Your task to perform on an android device: Turn off the flashlight Image 0: 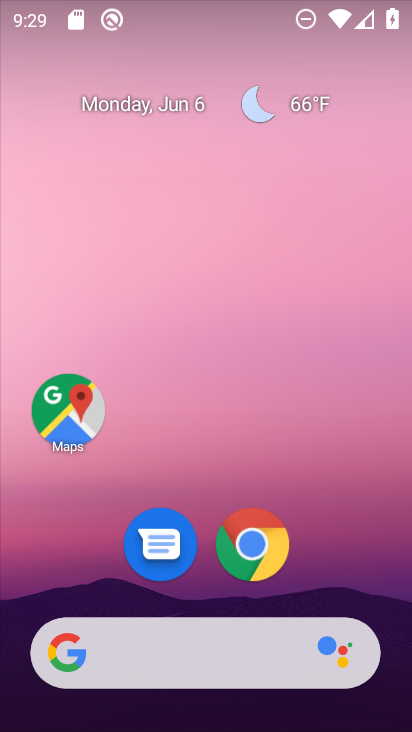
Step 0: drag from (204, 591) to (201, 162)
Your task to perform on an android device: Turn off the flashlight Image 1: 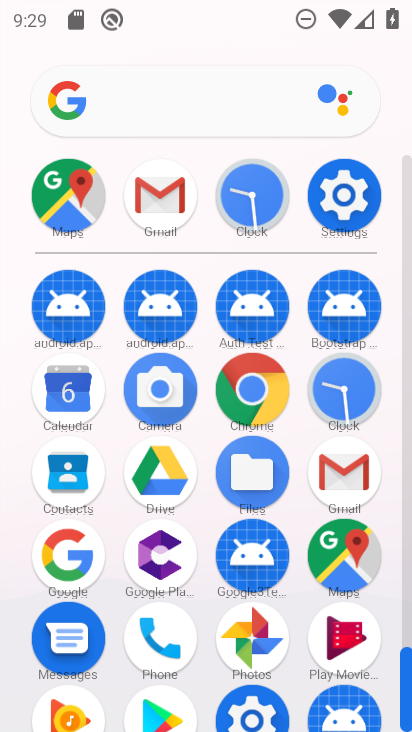
Step 1: click (352, 201)
Your task to perform on an android device: Turn off the flashlight Image 2: 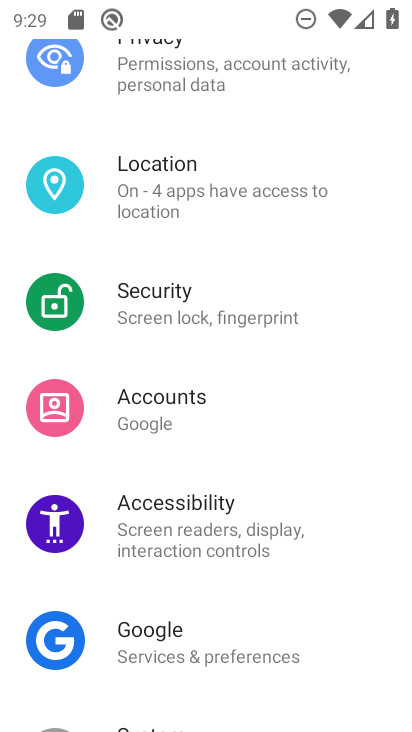
Step 2: drag from (220, 221) to (224, 586)
Your task to perform on an android device: Turn off the flashlight Image 3: 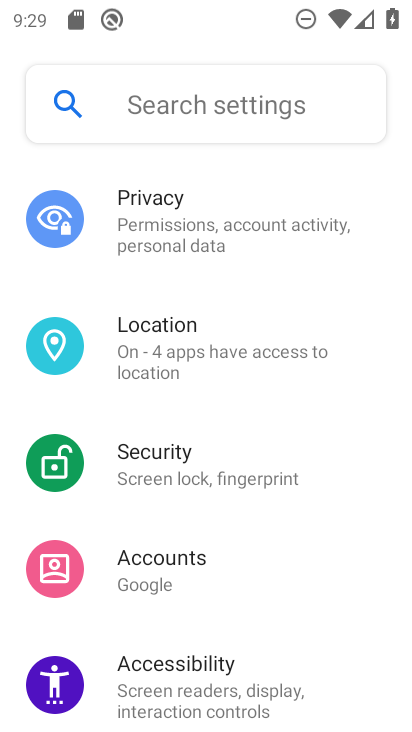
Step 3: drag from (220, 257) to (220, 706)
Your task to perform on an android device: Turn off the flashlight Image 4: 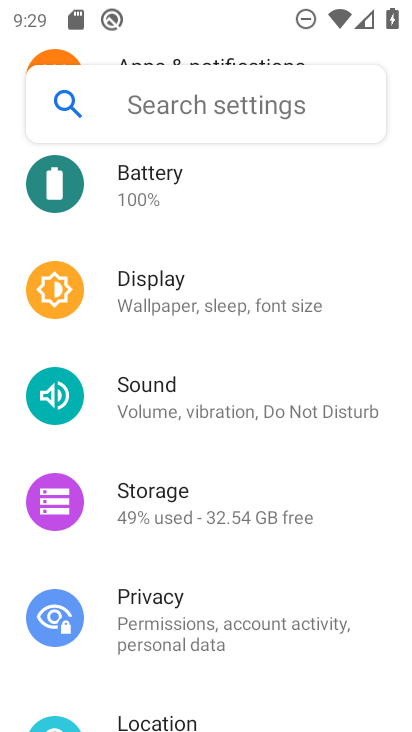
Step 4: click (188, 299)
Your task to perform on an android device: Turn off the flashlight Image 5: 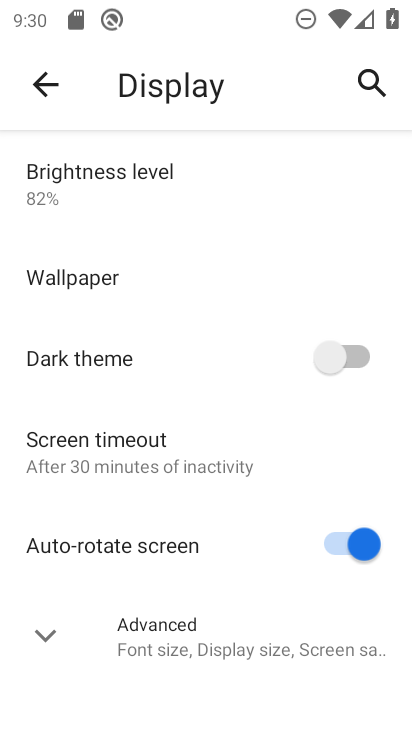
Step 5: task complete